Your task to perform on an android device: remove spam from my inbox in the gmail app Image 0: 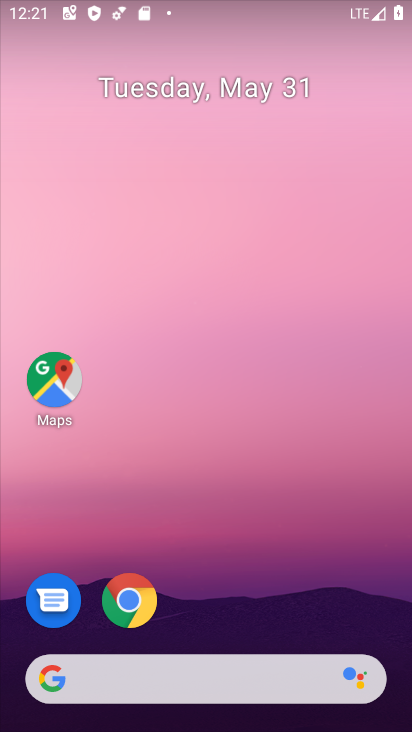
Step 0: drag from (227, 728) to (217, 141)
Your task to perform on an android device: remove spam from my inbox in the gmail app Image 1: 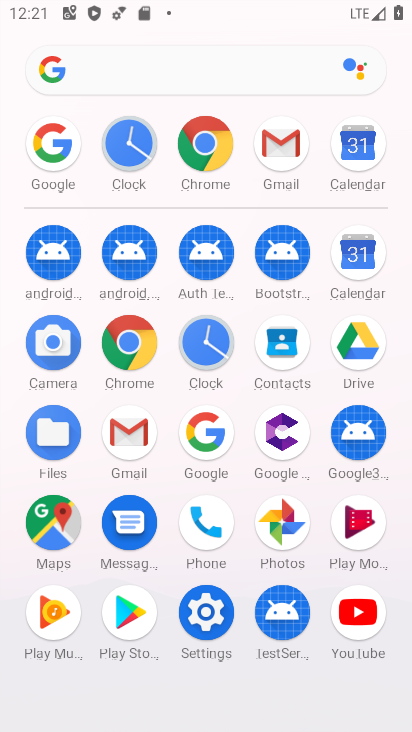
Step 1: click (122, 442)
Your task to perform on an android device: remove spam from my inbox in the gmail app Image 2: 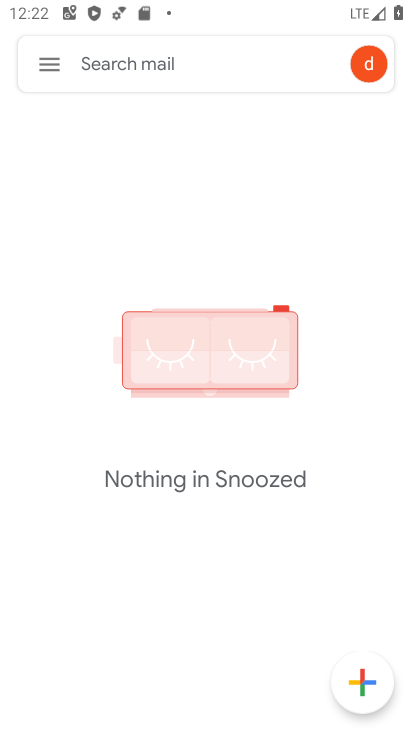
Step 2: click (46, 70)
Your task to perform on an android device: remove spam from my inbox in the gmail app Image 3: 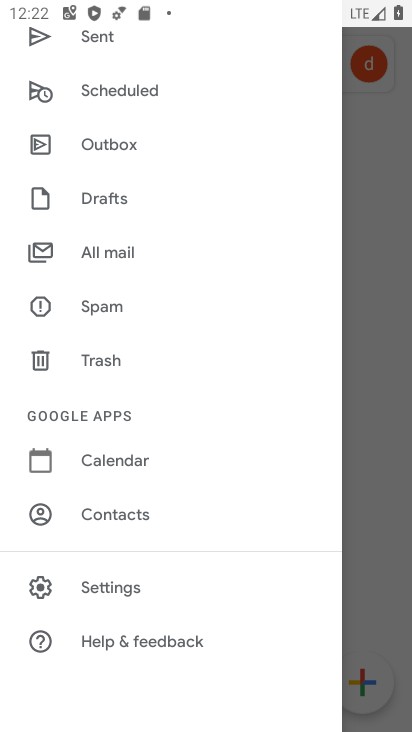
Step 3: drag from (166, 177) to (192, 605)
Your task to perform on an android device: remove spam from my inbox in the gmail app Image 4: 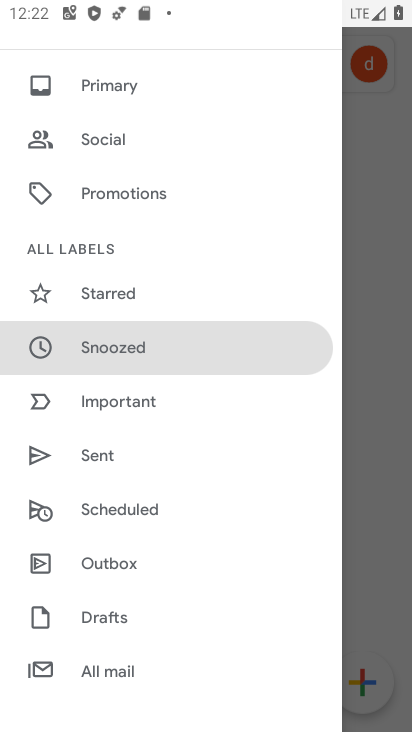
Step 4: drag from (185, 78) to (180, 561)
Your task to perform on an android device: remove spam from my inbox in the gmail app Image 5: 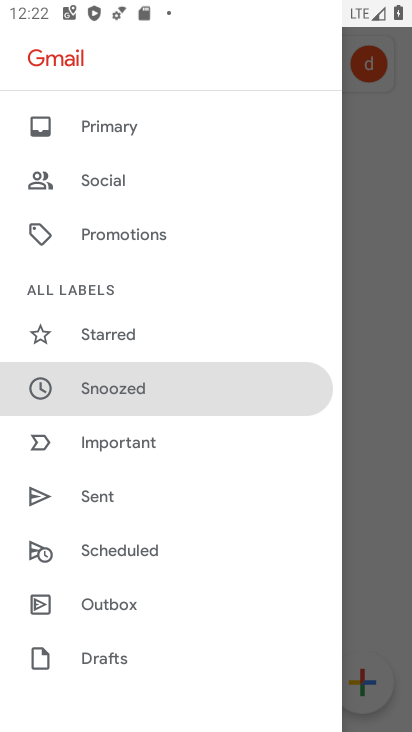
Step 5: click (123, 129)
Your task to perform on an android device: remove spam from my inbox in the gmail app Image 6: 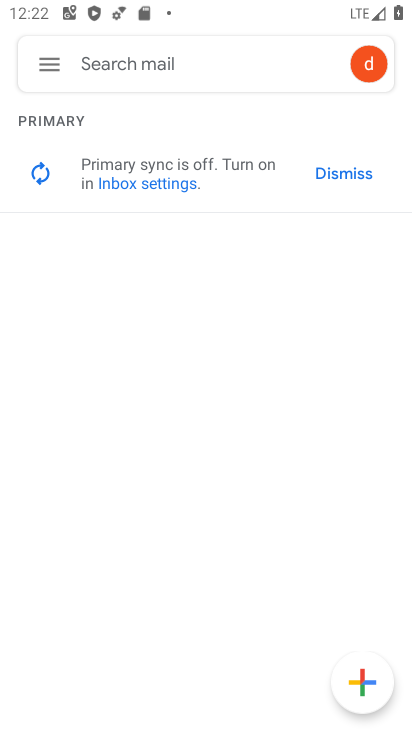
Step 6: task complete